Your task to perform on an android device: Go to privacy settings Image 0: 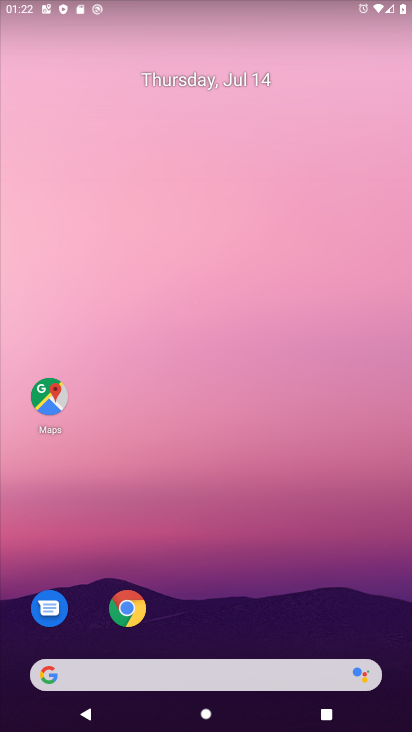
Step 0: press home button
Your task to perform on an android device: Go to privacy settings Image 1: 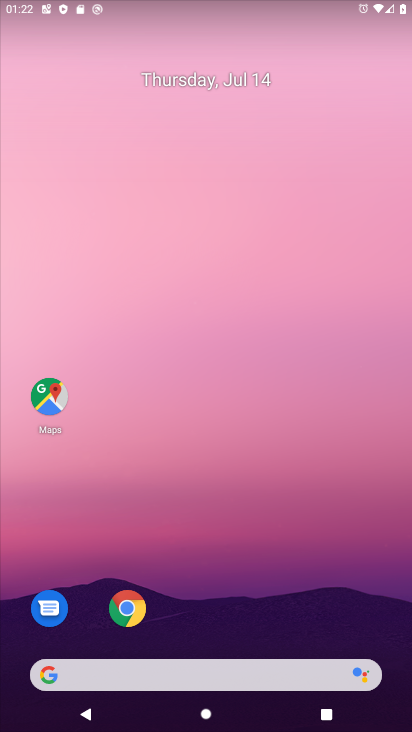
Step 1: drag from (294, 418) to (250, 14)
Your task to perform on an android device: Go to privacy settings Image 2: 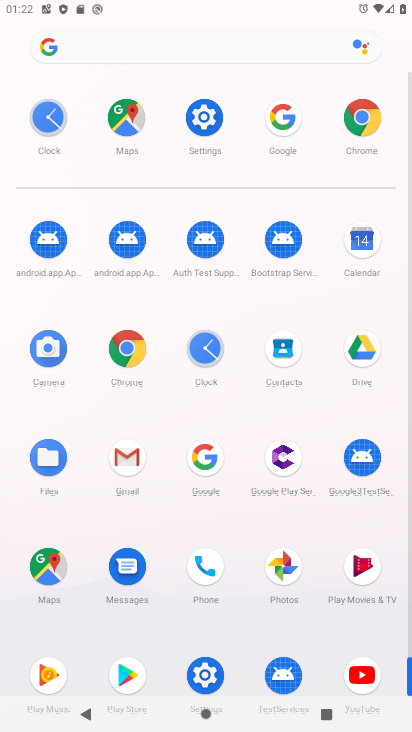
Step 2: click (199, 653)
Your task to perform on an android device: Go to privacy settings Image 3: 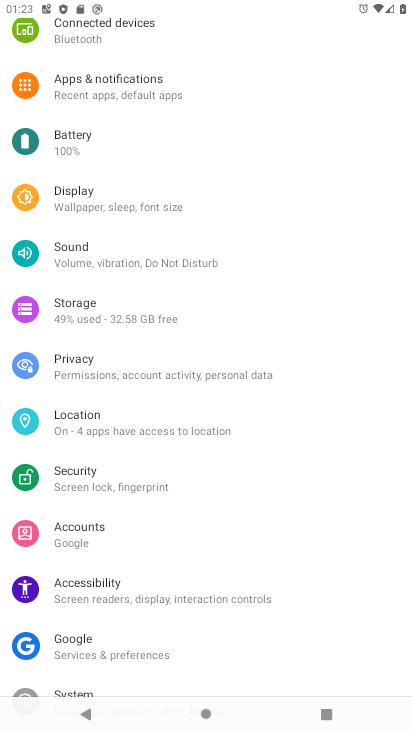
Step 3: click (76, 375)
Your task to perform on an android device: Go to privacy settings Image 4: 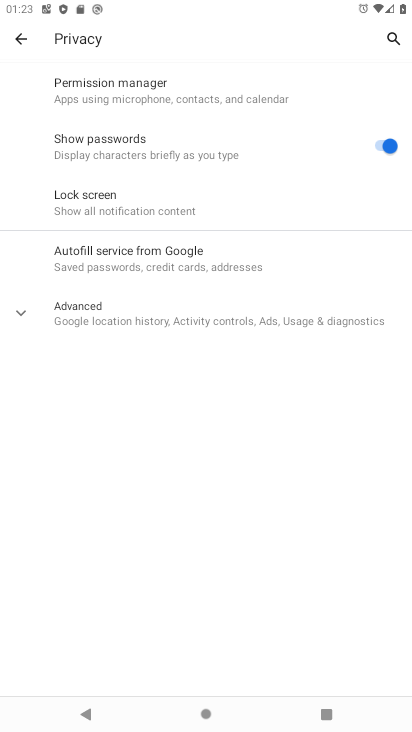
Step 4: task complete